Your task to perform on an android device: What's the weather? Image 0: 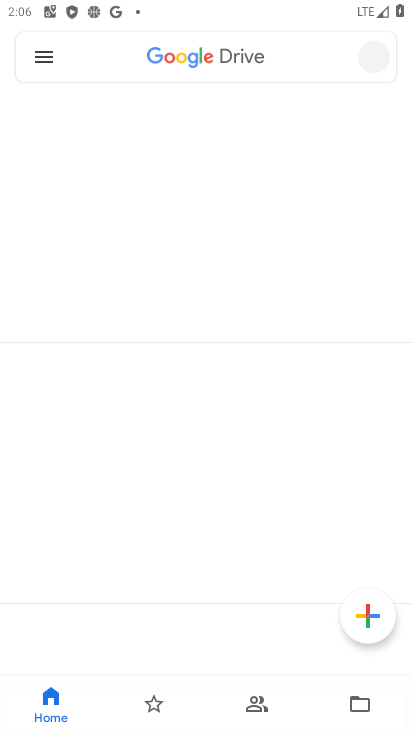
Step 0: drag from (357, 5) to (360, 266)
Your task to perform on an android device: What's the weather? Image 1: 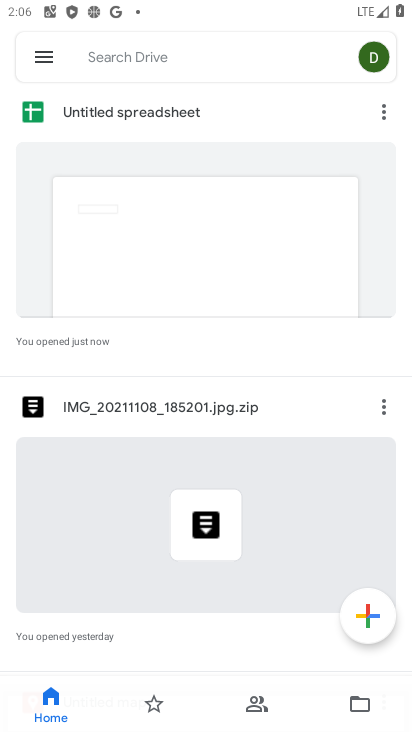
Step 1: press home button
Your task to perform on an android device: What's the weather? Image 2: 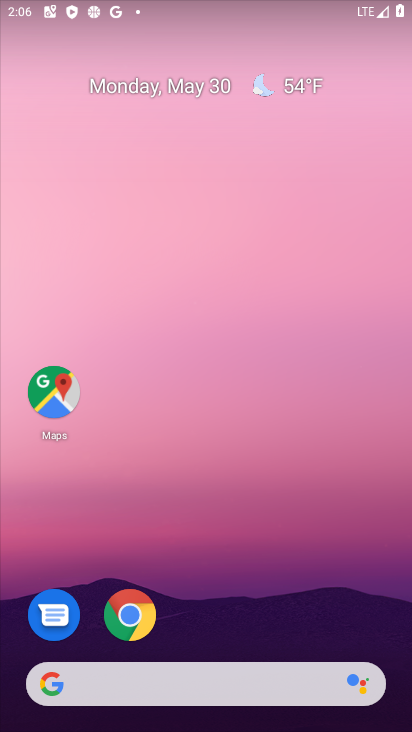
Step 2: click (294, 91)
Your task to perform on an android device: What's the weather? Image 3: 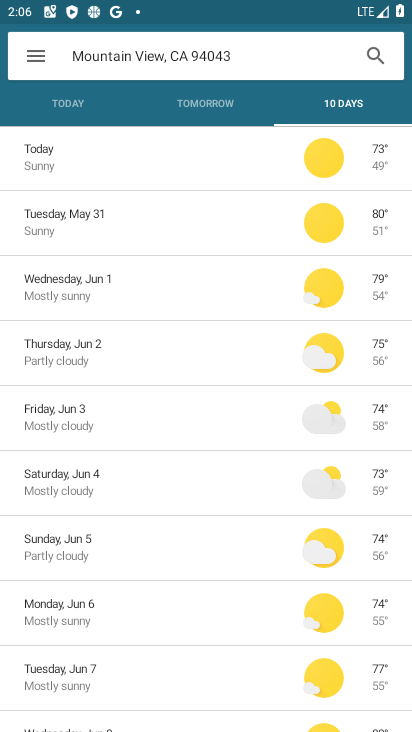
Step 3: click (68, 98)
Your task to perform on an android device: What's the weather? Image 4: 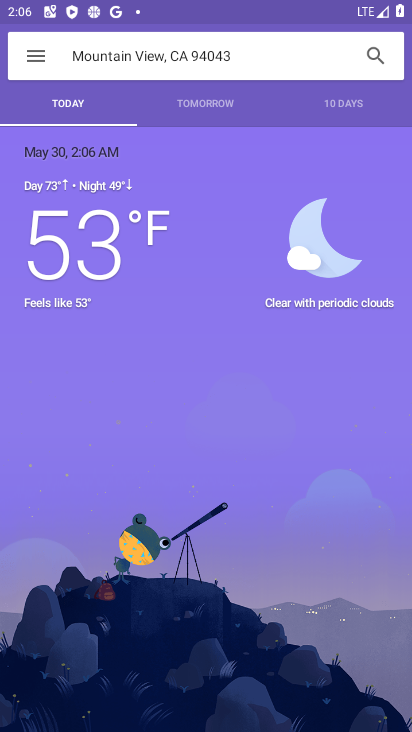
Step 4: task complete